Your task to perform on an android device: Open Wikipedia Image 0: 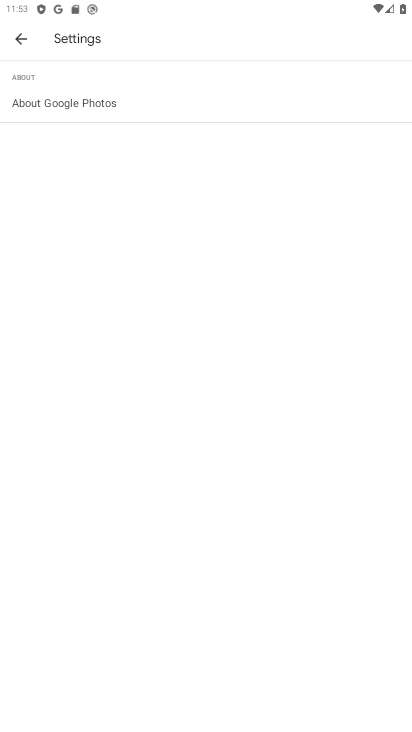
Step 0: press home button
Your task to perform on an android device: Open Wikipedia Image 1: 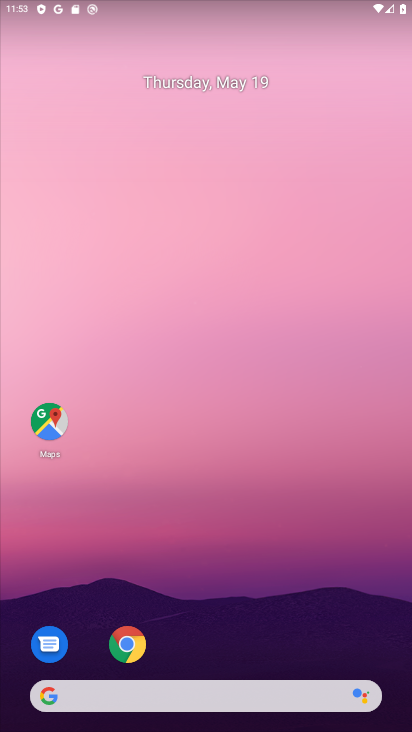
Step 1: click (133, 645)
Your task to perform on an android device: Open Wikipedia Image 2: 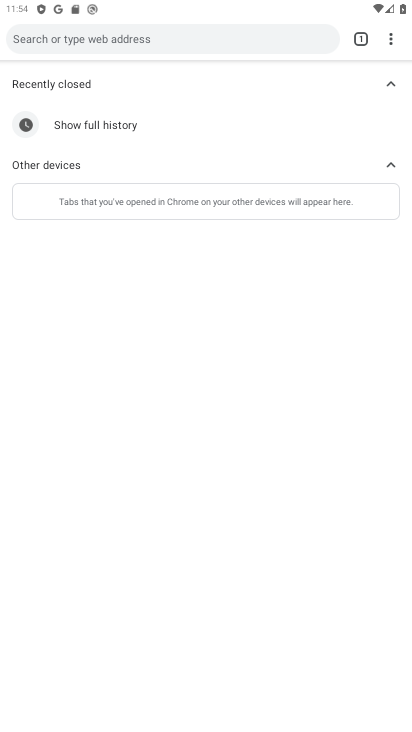
Step 2: click (389, 36)
Your task to perform on an android device: Open Wikipedia Image 3: 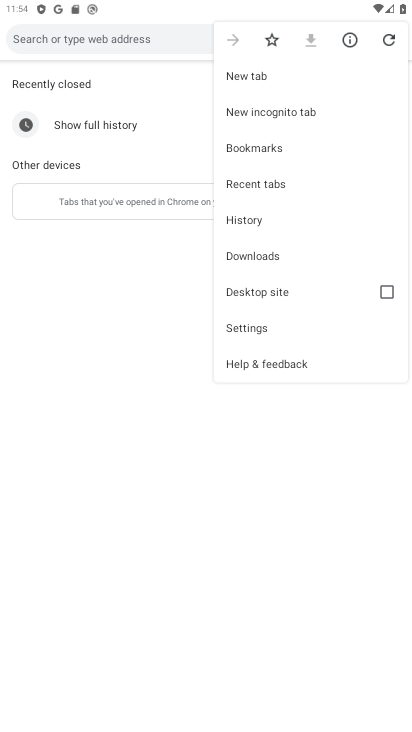
Step 3: click (258, 68)
Your task to perform on an android device: Open Wikipedia Image 4: 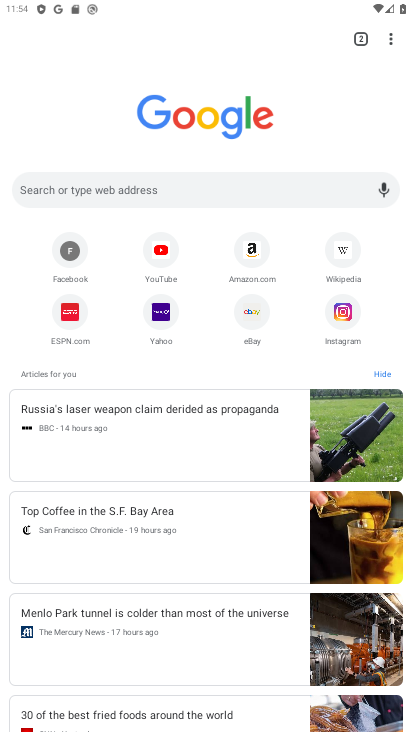
Step 4: click (340, 255)
Your task to perform on an android device: Open Wikipedia Image 5: 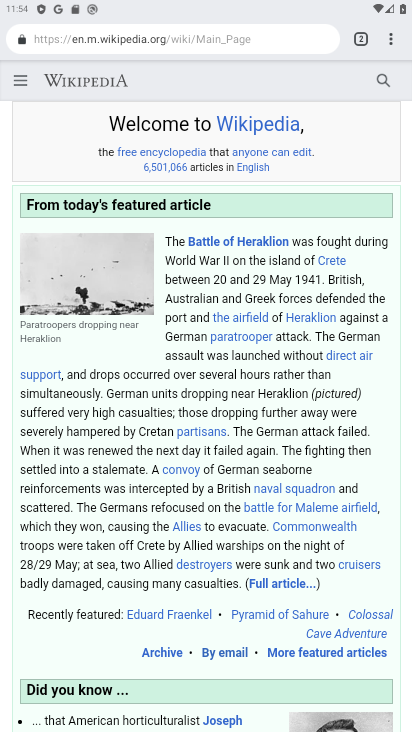
Step 5: task complete